Your task to perform on an android device: Go to Wikipedia Image 0: 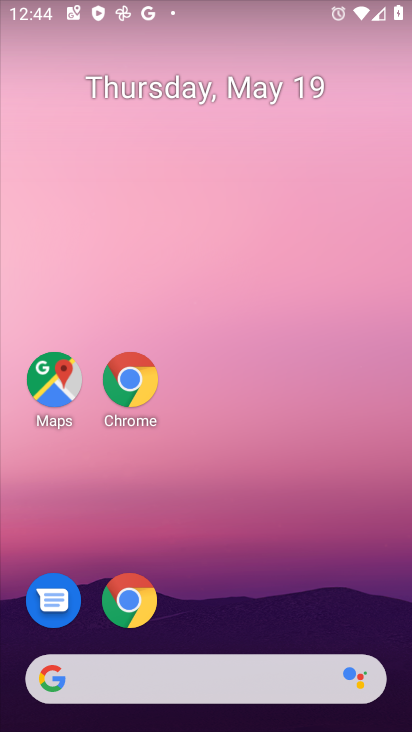
Step 0: drag from (342, 621) to (197, 182)
Your task to perform on an android device: Go to Wikipedia Image 1: 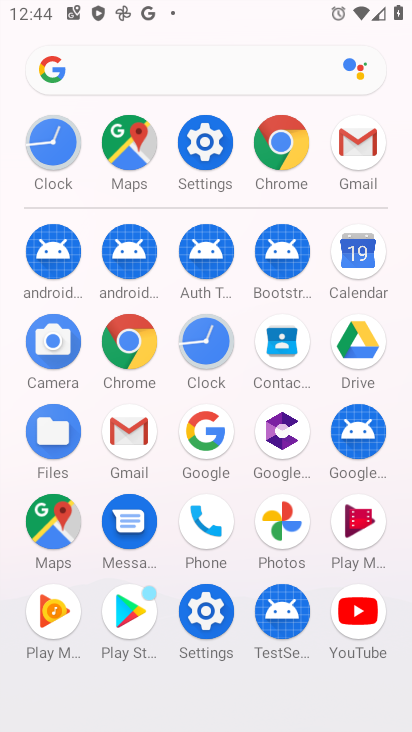
Step 1: click (282, 143)
Your task to perform on an android device: Go to Wikipedia Image 2: 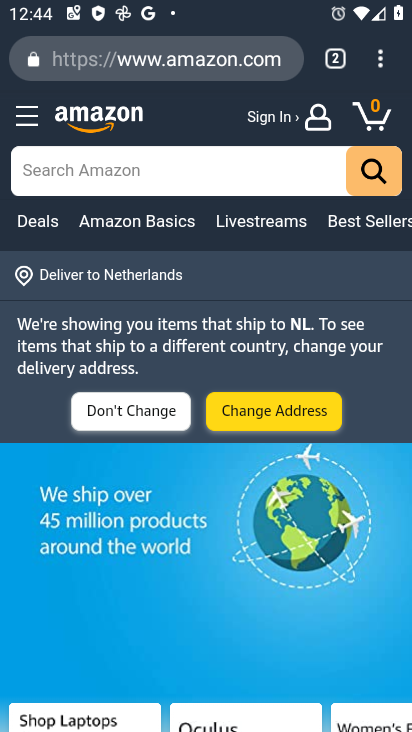
Step 2: click (379, 63)
Your task to perform on an android device: Go to Wikipedia Image 3: 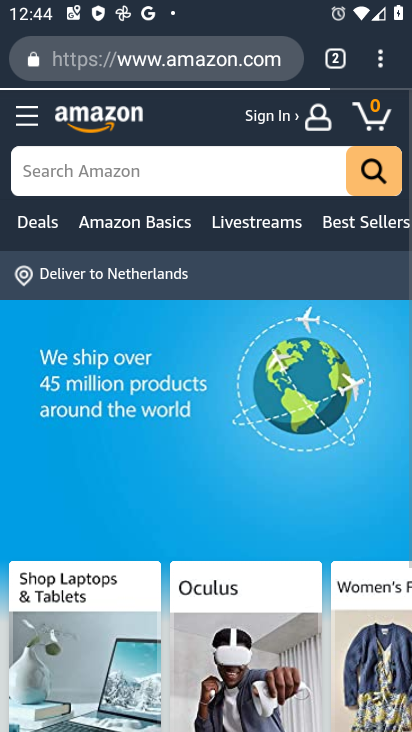
Step 3: drag from (380, 62) to (163, 119)
Your task to perform on an android device: Go to Wikipedia Image 4: 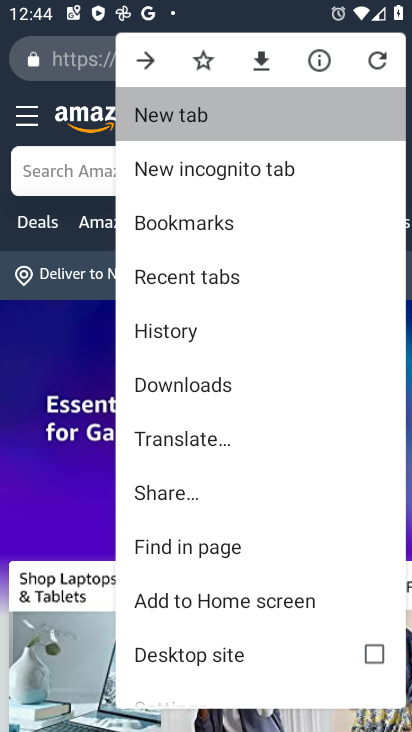
Step 4: click (163, 119)
Your task to perform on an android device: Go to Wikipedia Image 5: 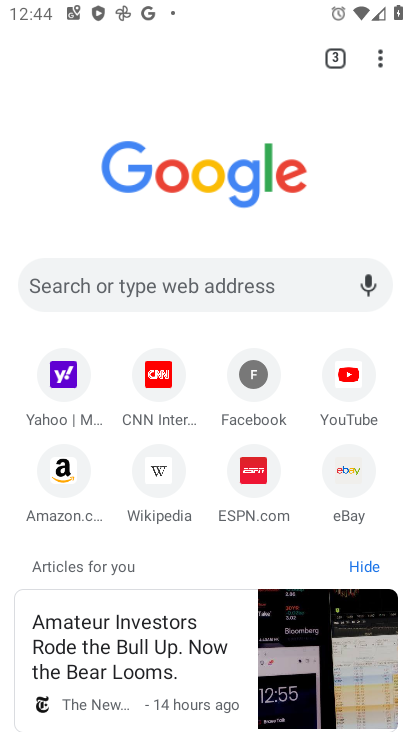
Step 5: click (171, 473)
Your task to perform on an android device: Go to Wikipedia Image 6: 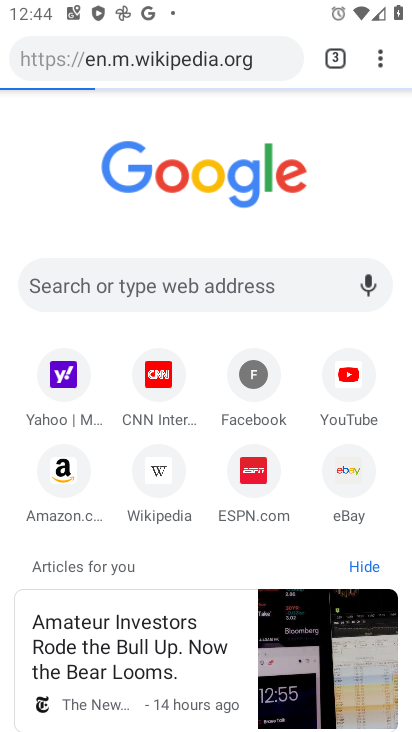
Step 6: click (166, 473)
Your task to perform on an android device: Go to Wikipedia Image 7: 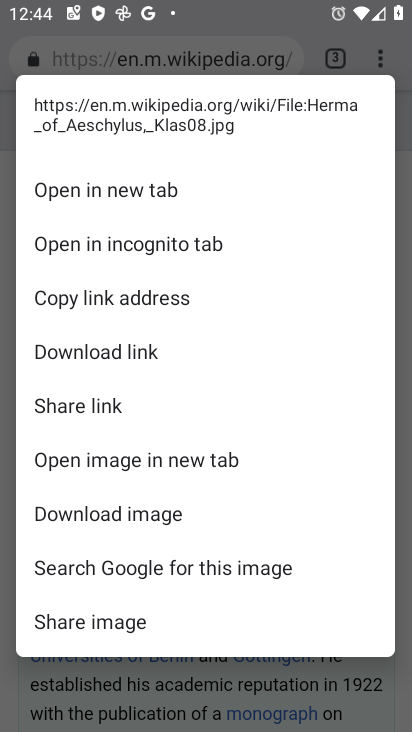
Step 7: click (321, 680)
Your task to perform on an android device: Go to Wikipedia Image 8: 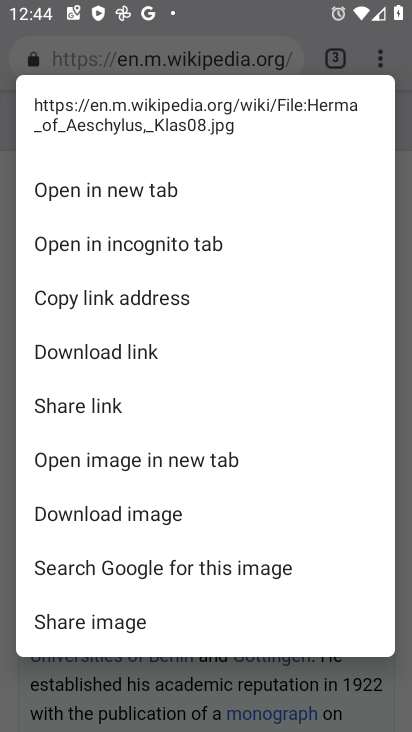
Step 8: click (400, 150)
Your task to perform on an android device: Go to Wikipedia Image 9: 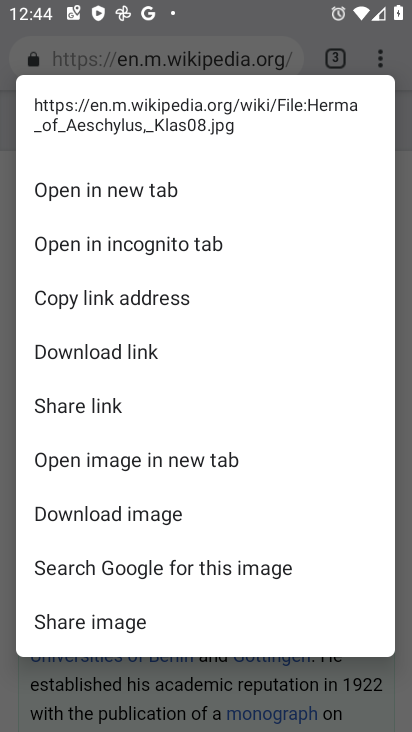
Step 9: click (403, 88)
Your task to perform on an android device: Go to Wikipedia Image 10: 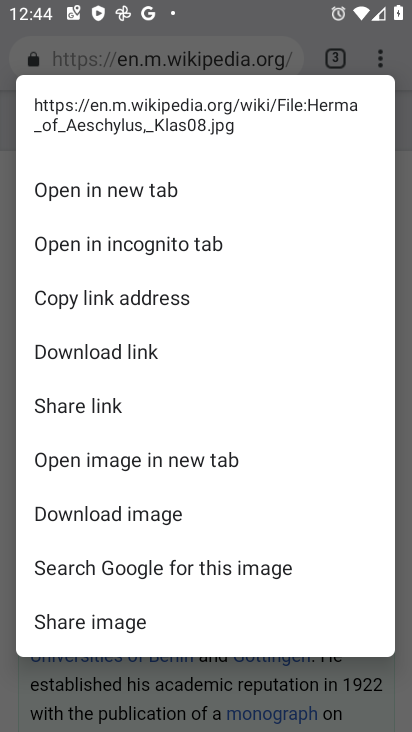
Step 10: click (397, 35)
Your task to perform on an android device: Go to Wikipedia Image 11: 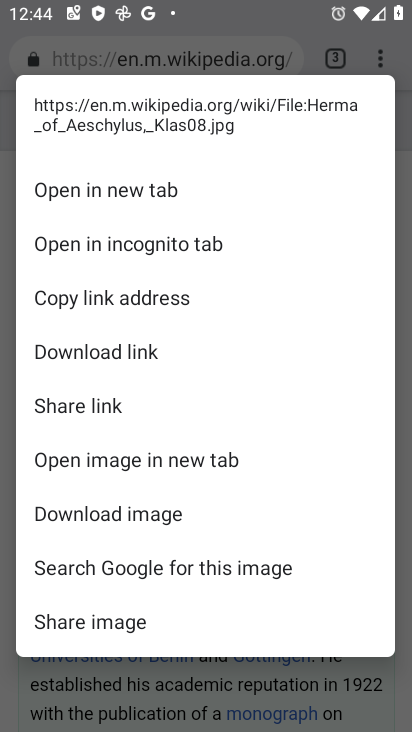
Step 11: click (299, 29)
Your task to perform on an android device: Go to Wikipedia Image 12: 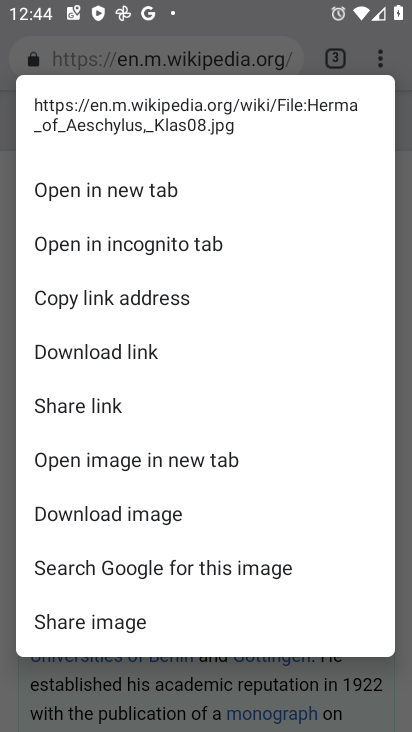
Step 12: click (299, 29)
Your task to perform on an android device: Go to Wikipedia Image 13: 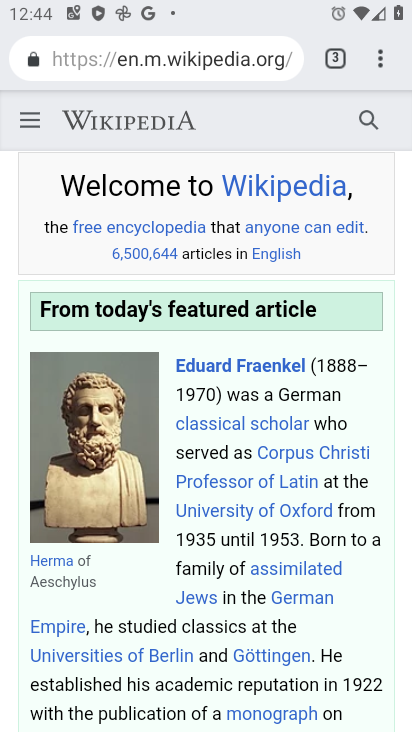
Step 13: click (298, 29)
Your task to perform on an android device: Go to Wikipedia Image 14: 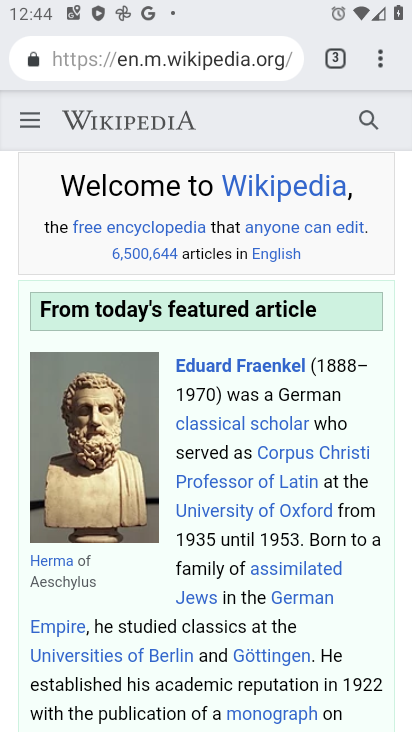
Step 14: task complete